Your task to perform on an android device: Open privacy settings Image 0: 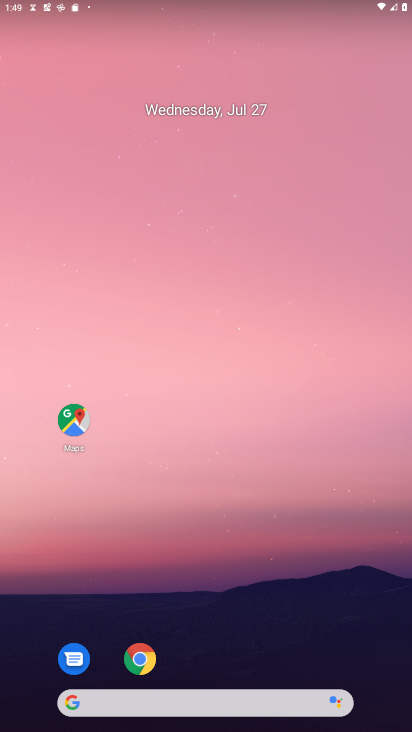
Step 0: press home button
Your task to perform on an android device: Open privacy settings Image 1: 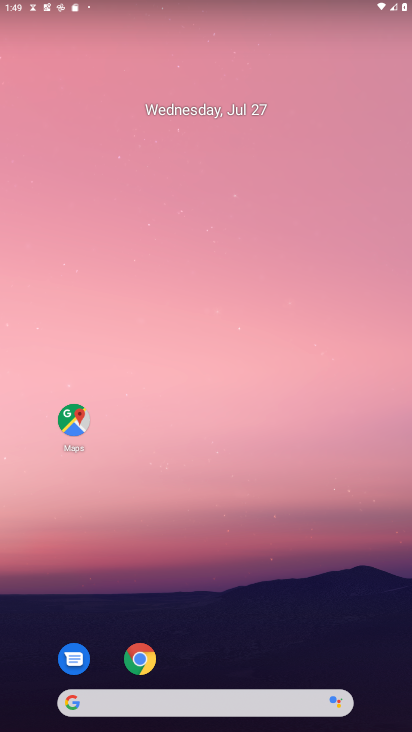
Step 1: drag from (18, 680) to (235, 71)
Your task to perform on an android device: Open privacy settings Image 2: 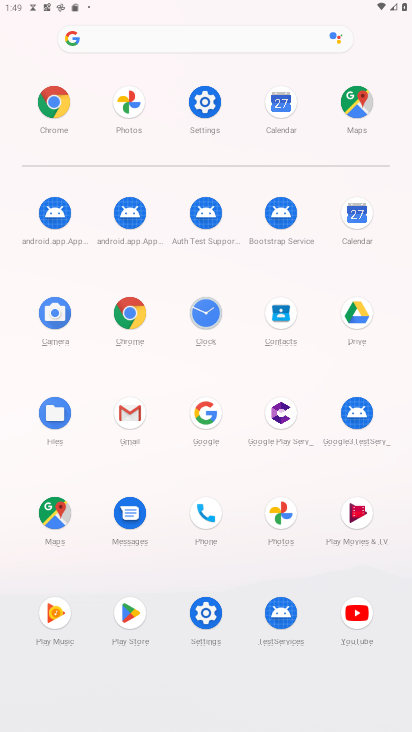
Step 2: click (185, 106)
Your task to perform on an android device: Open privacy settings Image 3: 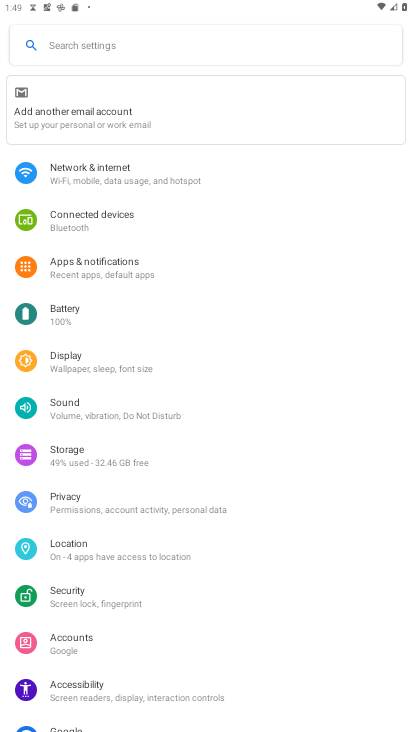
Step 3: click (59, 500)
Your task to perform on an android device: Open privacy settings Image 4: 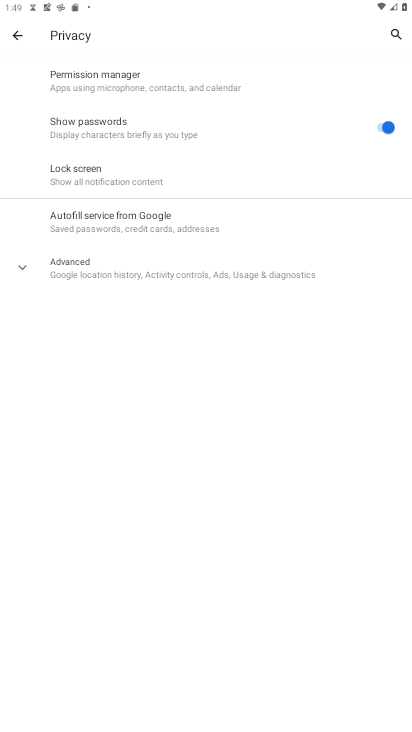
Step 4: task complete